Your task to perform on an android device: turn on notifications settings in the gmail app Image 0: 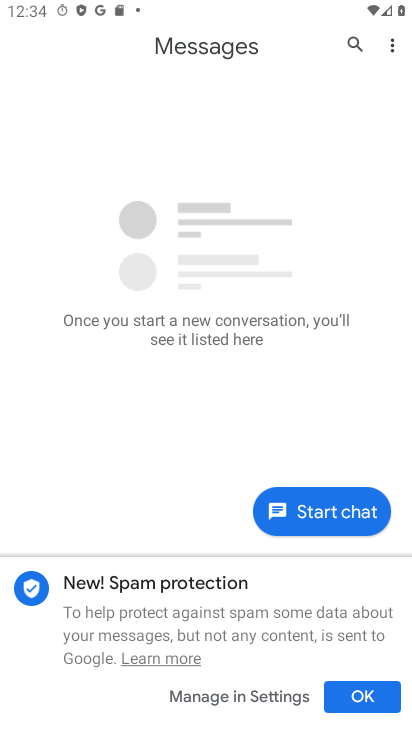
Step 0: press home button
Your task to perform on an android device: turn on notifications settings in the gmail app Image 1: 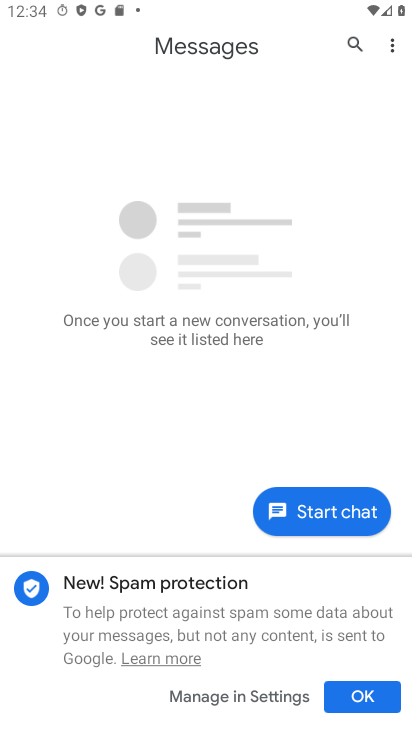
Step 1: press home button
Your task to perform on an android device: turn on notifications settings in the gmail app Image 2: 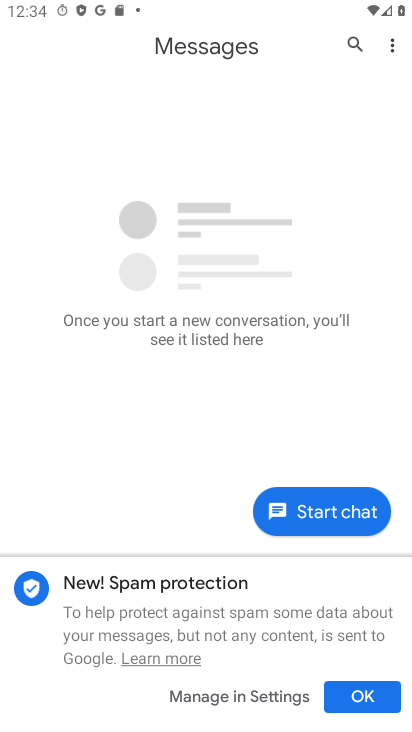
Step 2: click (331, 84)
Your task to perform on an android device: turn on notifications settings in the gmail app Image 3: 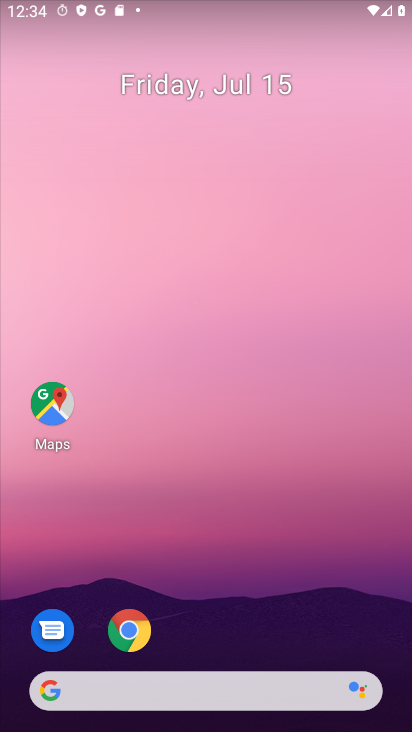
Step 3: drag from (208, 612) to (232, 185)
Your task to perform on an android device: turn on notifications settings in the gmail app Image 4: 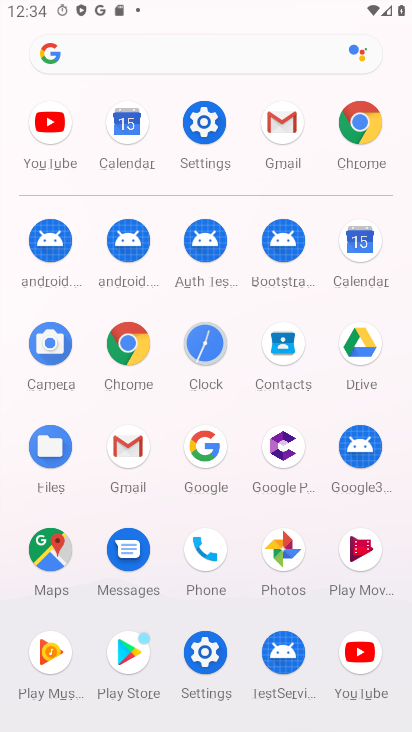
Step 4: click (123, 449)
Your task to perform on an android device: turn on notifications settings in the gmail app Image 5: 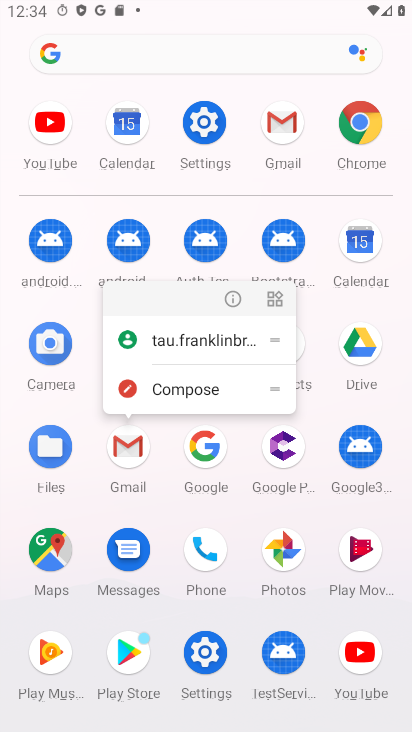
Step 5: click (225, 286)
Your task to perform on an android device: turn on notifications settings in the gmail app Image 6: 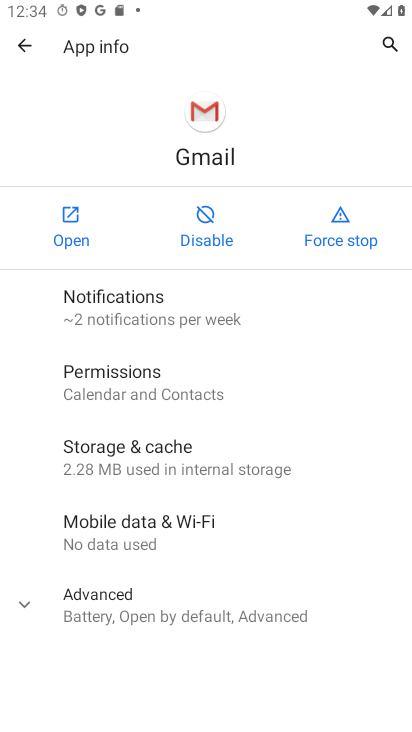
Step 6: click (85, 229)
Your task to perform on an android device: turn on notifications settings in the gmail app Image 7: 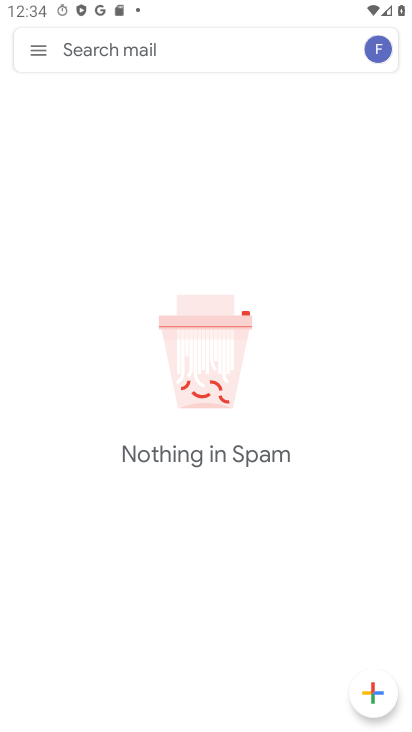
Step 7: drag from (218, 499) to (208, 363)
Your task to perform on an android device: turn on notifications settings in the gmail app Image 8: 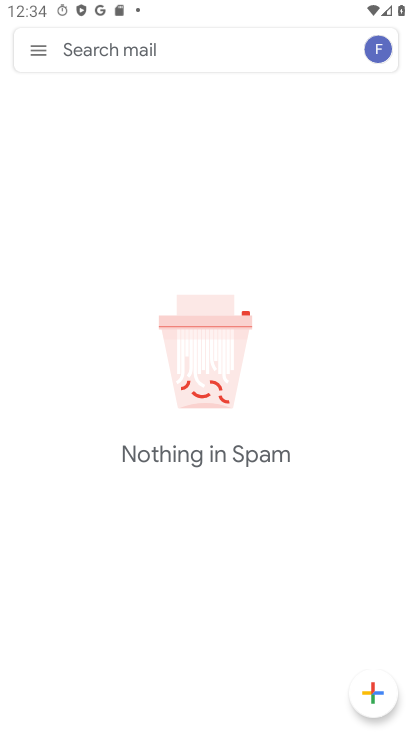
Step 8: click (32, 32)
Your task to perform on an android device: turn on notifications settings in the gmail app Image 9: 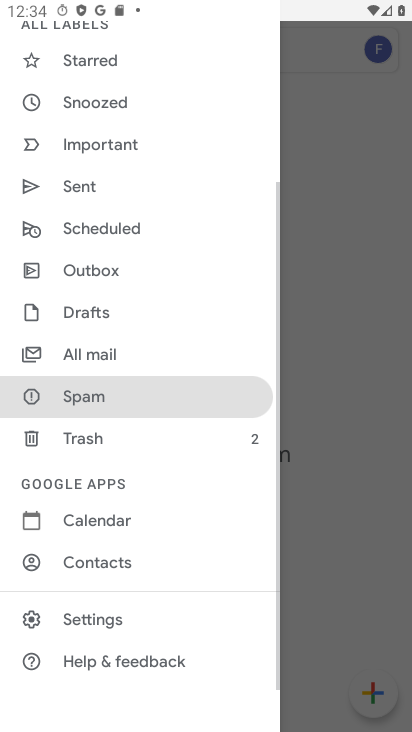
Step 9: click (96, 623)
Your task to perform on an android device: turn on notifications settings in the gmail app Image 10: 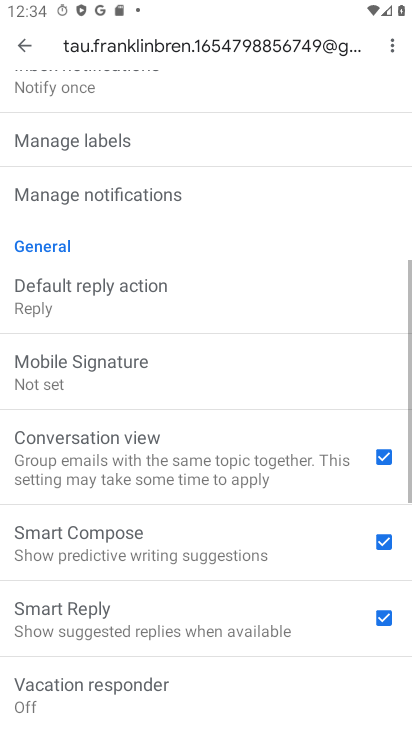
Step 10: drag from (122, 615) to (193, 377)
Your task to perform on an android device: turn on notifications settings in the gmail app Image 11: 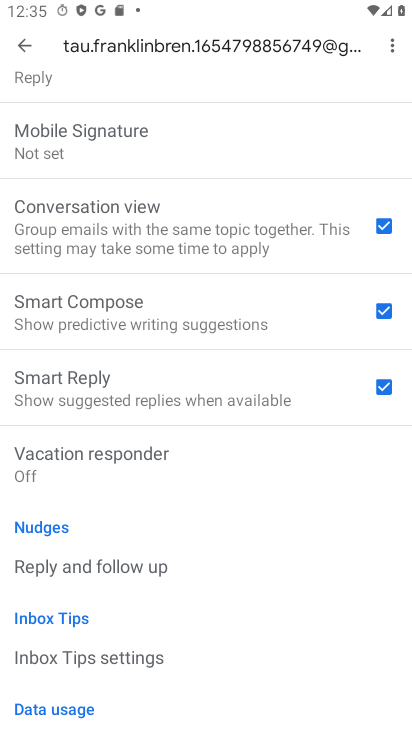
Step 11: drag from (201, 216) to (198, 724)
Your task to perform on an android device: turn on notifications settings in the gmail app Image 12: 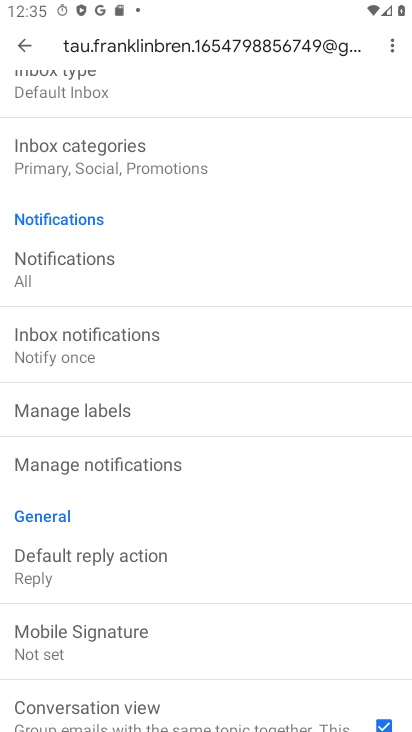
Step 12: click (93, 475)
Your task to perform on an android device: turn on notifications settings in the gmail app Image 13: 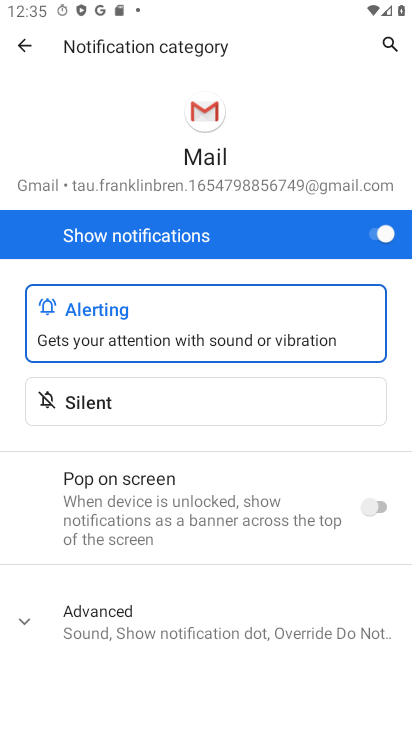
Step 13: task complete